Your task to perform on an android device: open a new tab in the chrome app Image 0: 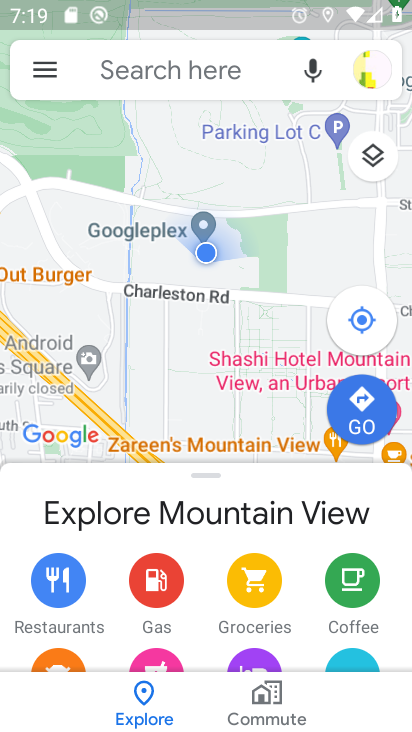
Step 0: press back button
Your task to perform on an android device: open a new tab in the chrome app Image 1: 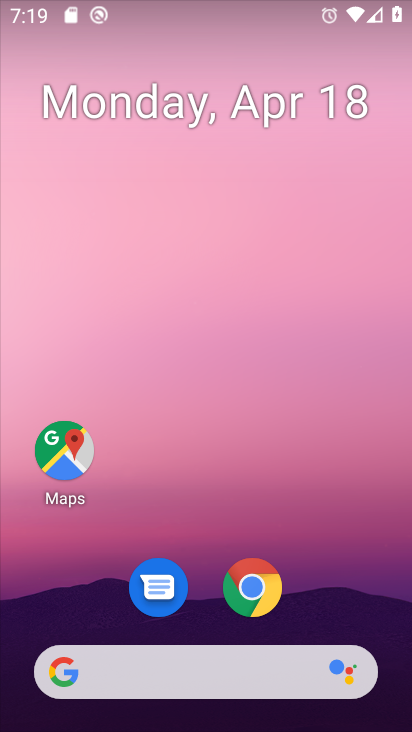
Step 1: click (269, 598)
Your task to perform on an android device: open a new tab in the chrome app Image 2: 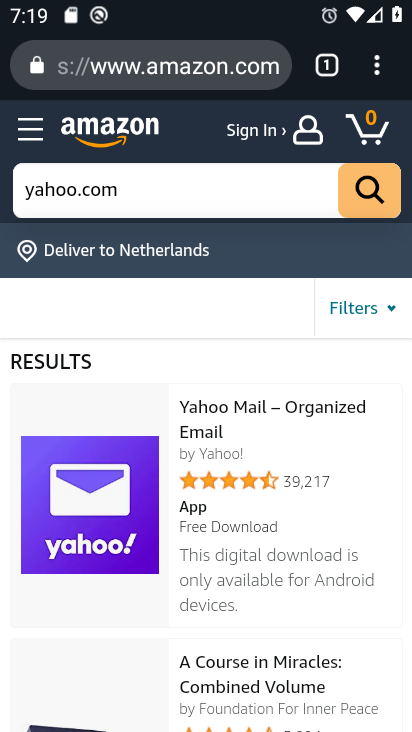
Step 2: click (327, 73)
Your task to perform on an android device: open a new tab in the chrome app Image 3: 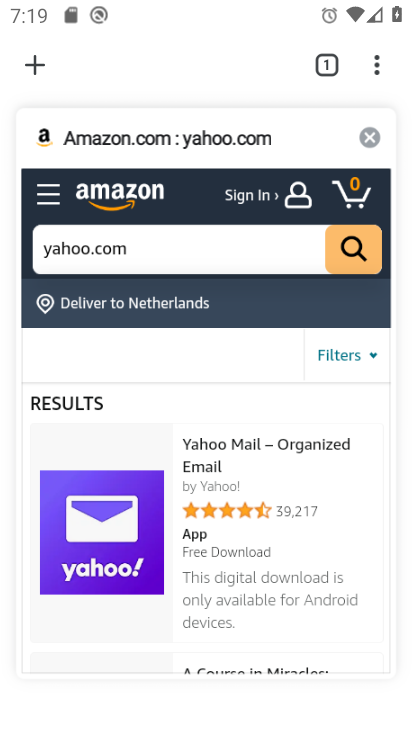
Step 3: click (30, 80)
Your task to perform on an android device: open a new tab in the chrome app Image 4: 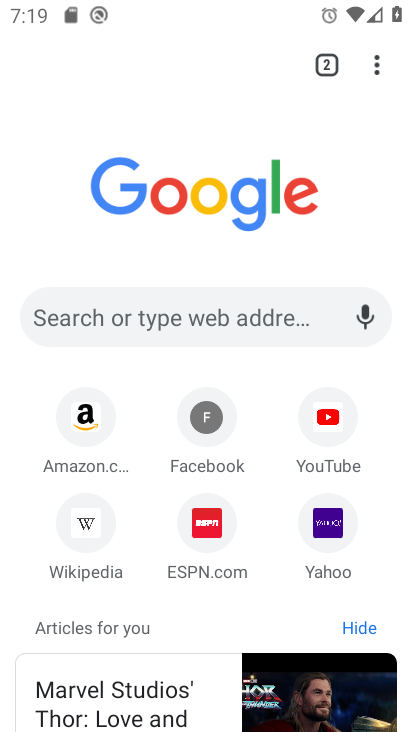
Step 4: task complete